Your task to perform on an android device: turn off improve location accuracy Image 0: 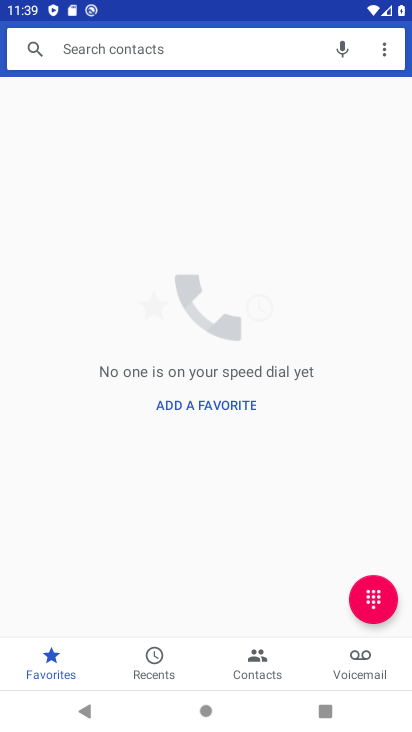
Step 0: press home button
Your task to perform on an android device: turn off improve location accuracy Image 1: 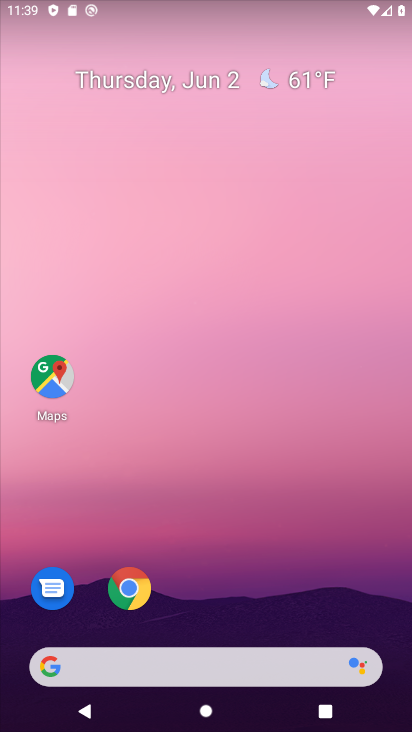
Step 1: drag from (273, 571) to (344, 171)
Your task to perform on an android device: turn off improve location accuracy Image 2: 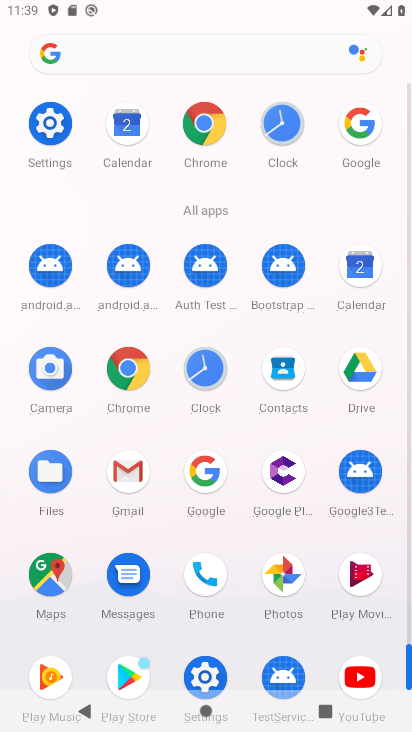
Step 2: drag from (161, 194) to (197, 258)
Your task to perform on an android device: turn off improve location accuracy Image 3: 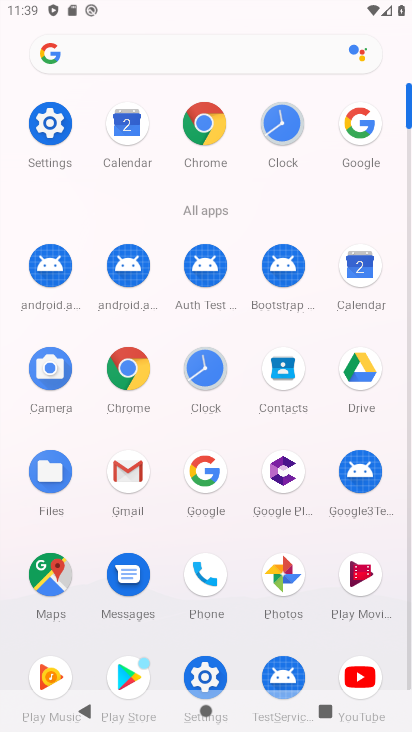
Step 3: click (57, 145)
Your task to perform on an android device: turn off improve location accuracy Image 4: 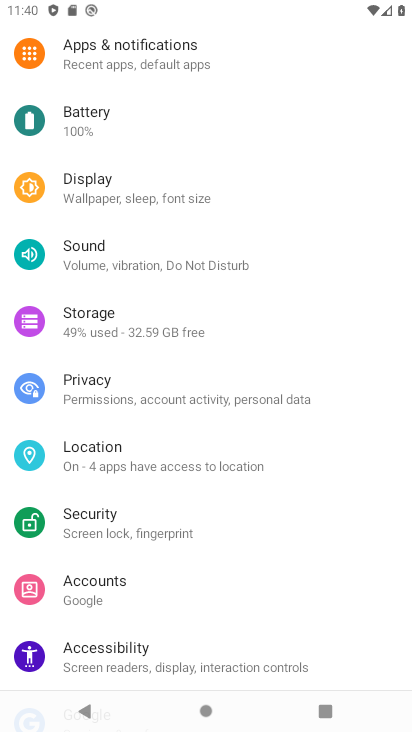
Step 4: click (136, 451)
Your task to perform on an android device: turn off improve location accuracy Image 5: 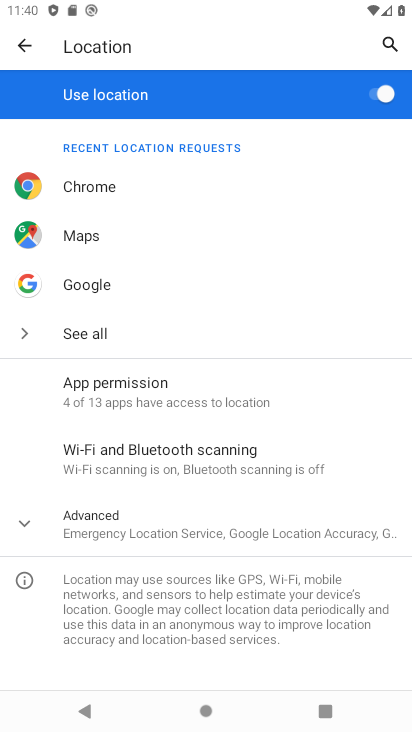
Step 5: click (162, 543)
Your task to perform on an android device: turn off improve location accuracy Image 6: 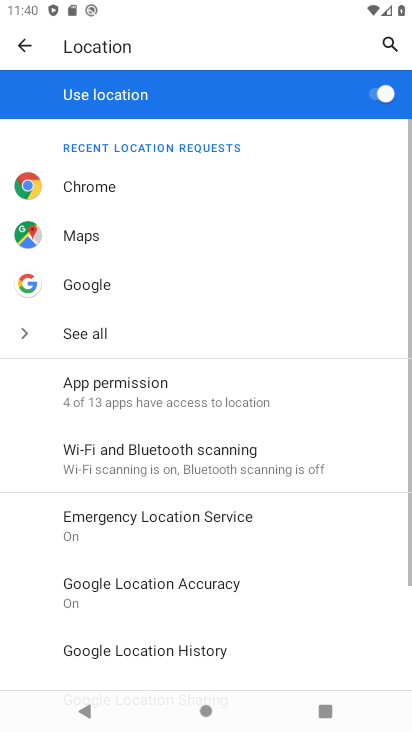
Step 6: drag from (162, 543) to (153, 286)
Your task to perform on an android device: turn off improve location accuracy Image 7: 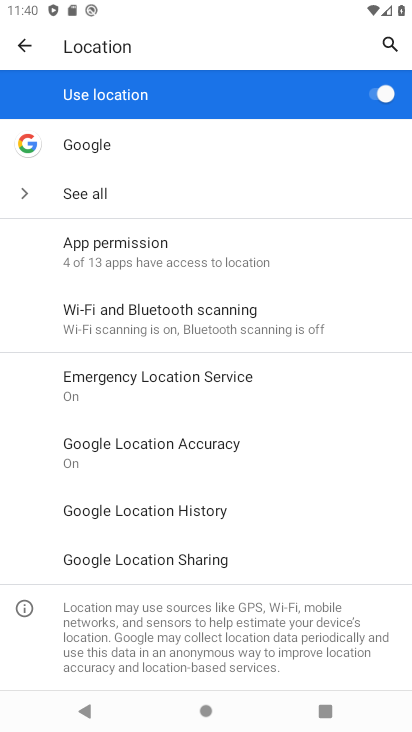
Step 7: click (158, 447)
Your task to perform on an android device: turn off improve location accuracy Image 8: 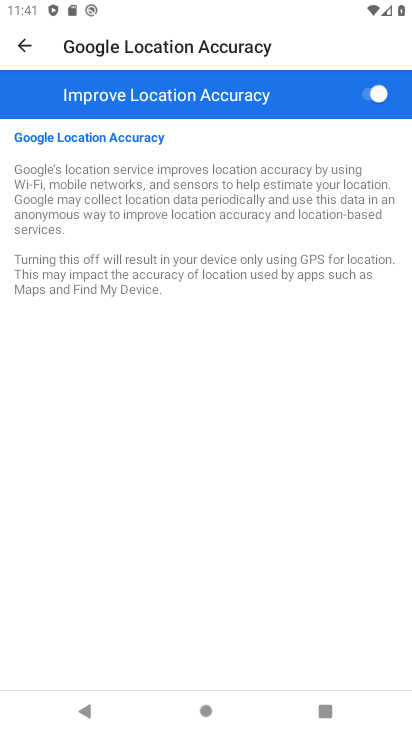
Step 8: click (370, 97)
Your task to perform on an android device: turn off improve location accuracy Image 9: 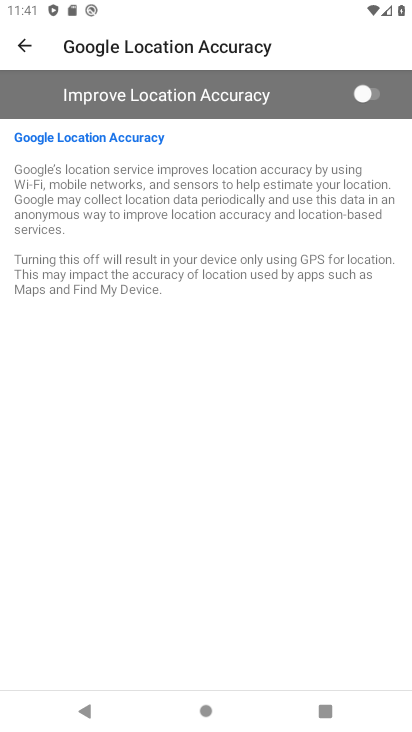
Step 9: task complete